Your task to perform on an android device: Open calendar and show me the second week of next month Image 0: 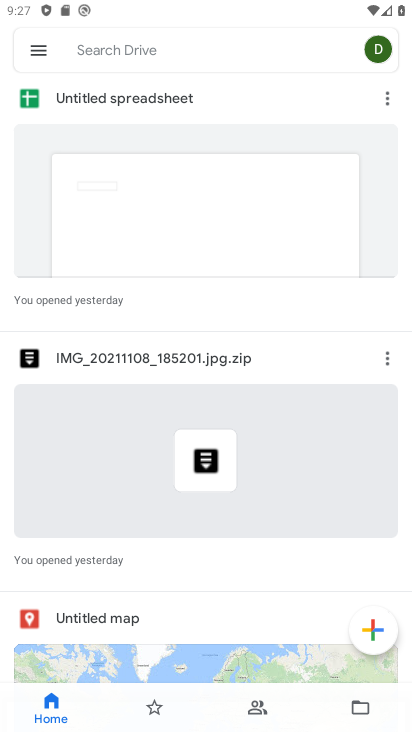
Step 0: press home button
Your task to perform on an android device: Open calendar and show me the second week of next month Image 1: 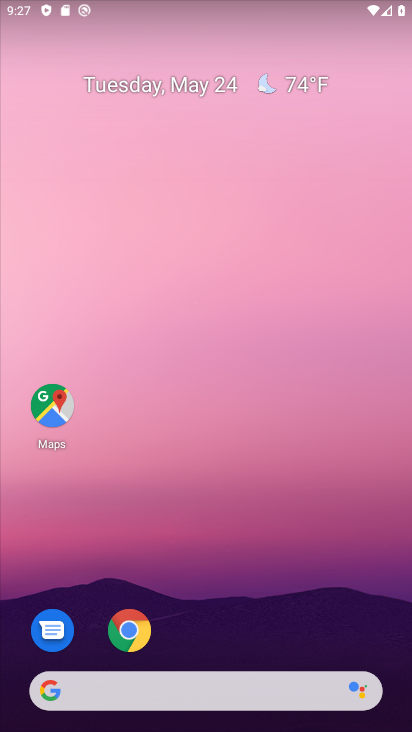
Step 1: drag from (265, 624) to (244, 136)
Your task to perform on an android device: Open calendar and show me the second week of next month Image 2: 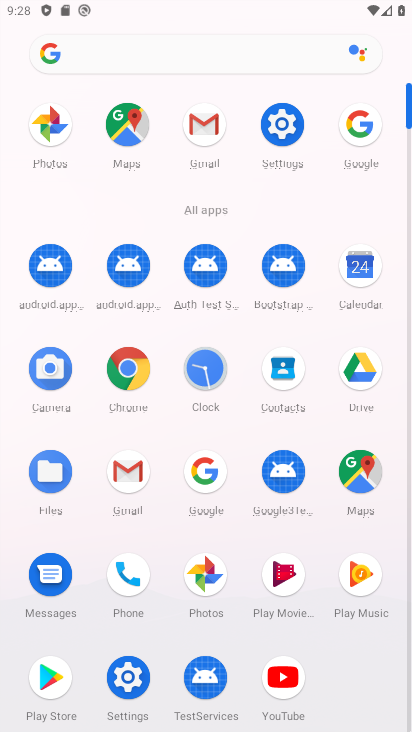
Step 2: click (367, 273)
Your task to perform on an android device: Open calendar and show me the second week of next month Image 3: 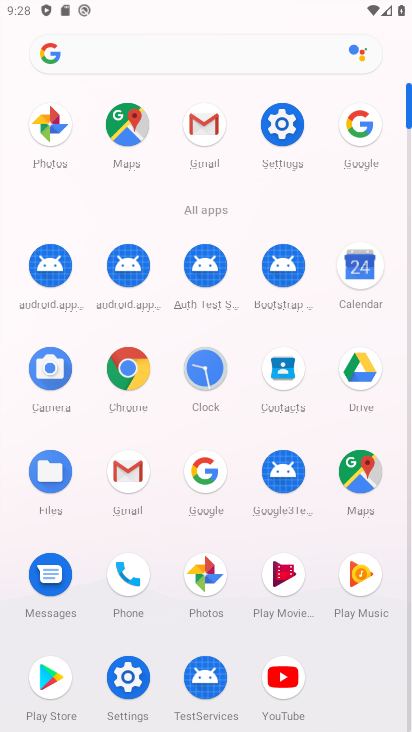
Step 3: click (366, 272)
Your task to perform on an android device: Open calendar and show me the second week of next month Image 4: 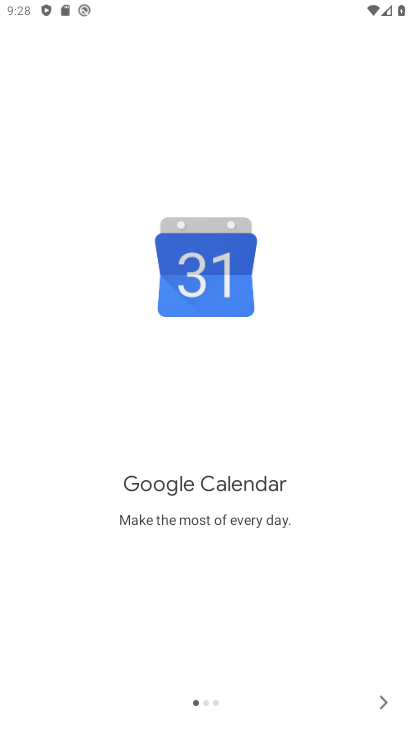
Step 4: click (381, 710)
Your task to perform on an android device: Open calendar and show me the second week of next month Image 5: 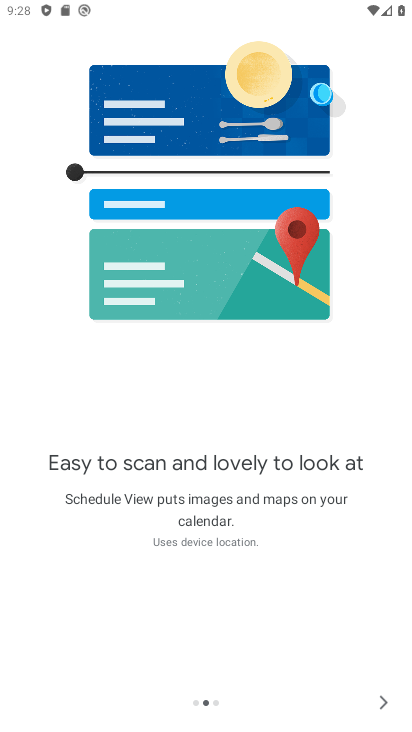
Step 5: click (381, 702)
Your task to perform on an android device: Open calendar and show me the second week of next month Image 6: 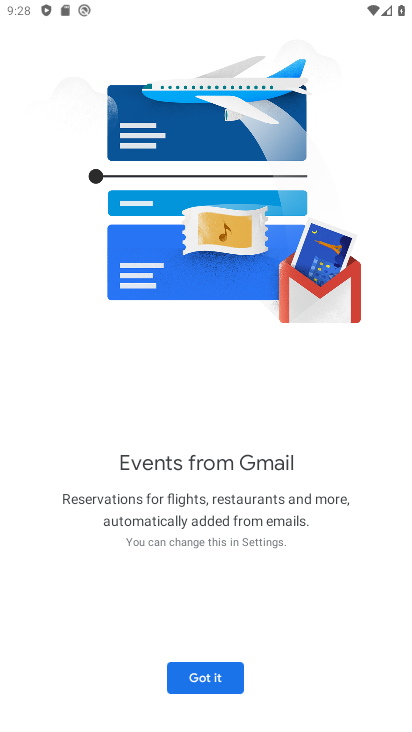
Step 6: click (183, 677)
Your task to perform on an android device: Open calendar and show me the second week of next month Image 7: 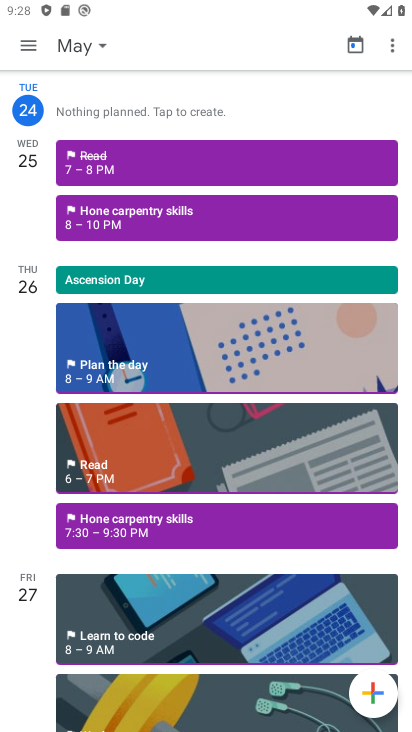
Step 7: click (30, 38)
Your task to perform on an android device: Open calendar and show me the second week of next month Image 8: 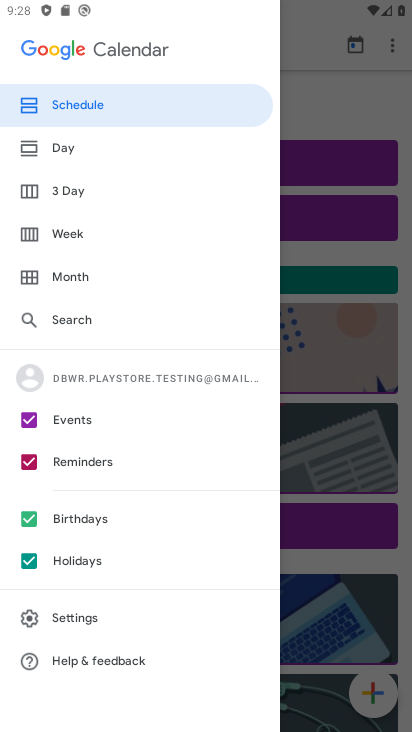
Step 8: click (79, 237)
Your task to perform on an android device: Open calendar and show me the second week of next month Image 9: 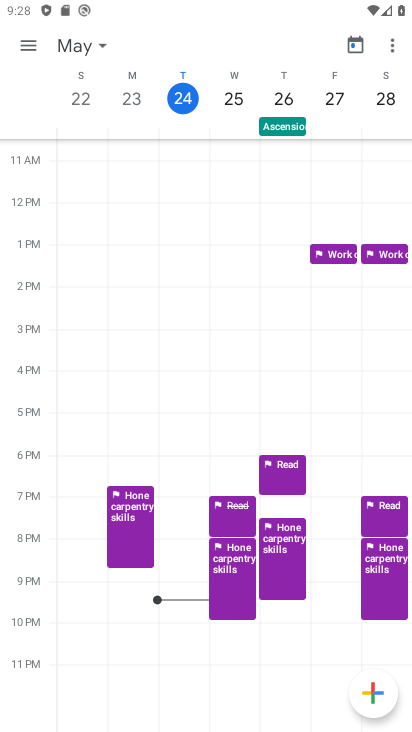
Step 9: click (103, 41)
Your task to perform on an android device: Open calendar and show me the second week of next month Image 10: 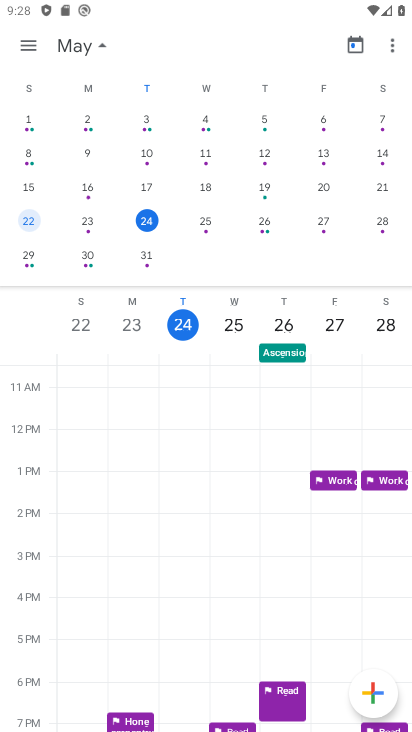
Step 10: drag from (364, 242) to (1, 183)
Your task to perform on an android device: Open calendar and show me the second week of next month Image 11: 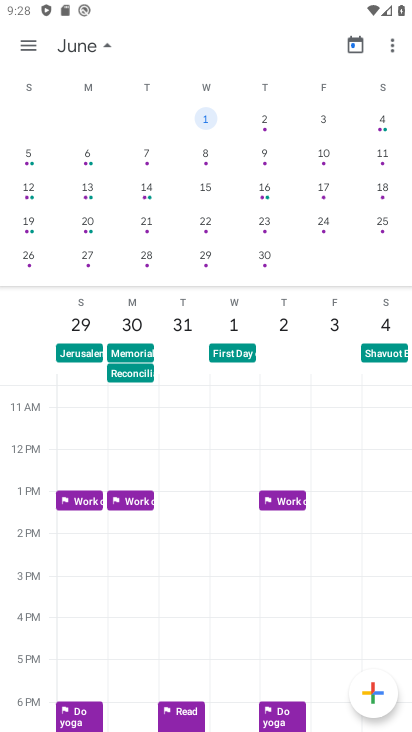
Step 11: click (89, 185)
Your task to perform on an android device: Open calendar and show me the second week of next month Image 12: 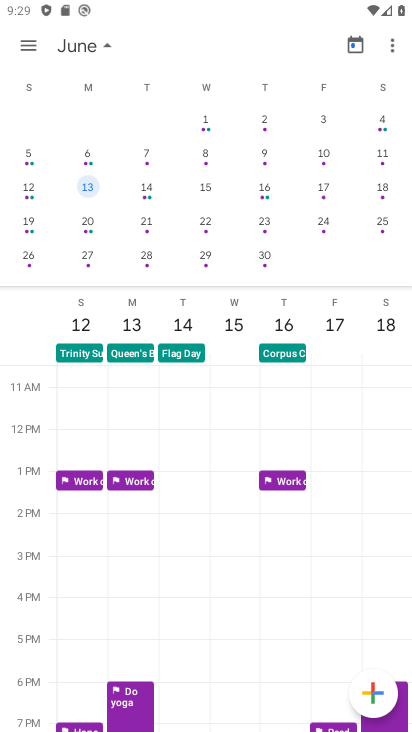
Step 12: task complete